Your task to perform on an android device: turn vacation reply on in the gmail app Image 0: 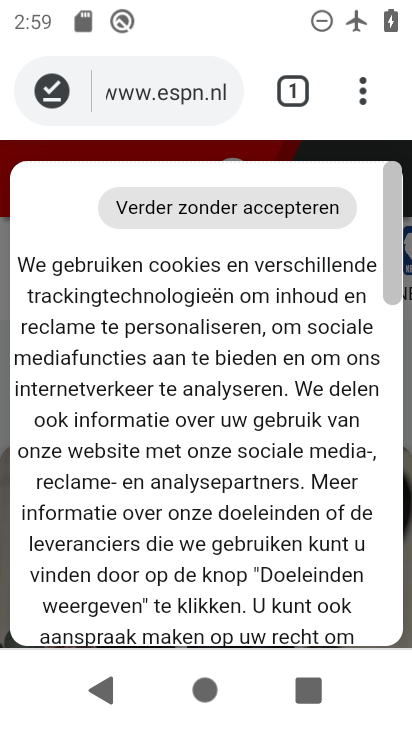
Step 0: press home button
Your task to perform on an android device: turn vacation reply on in the gmail app Image 1: 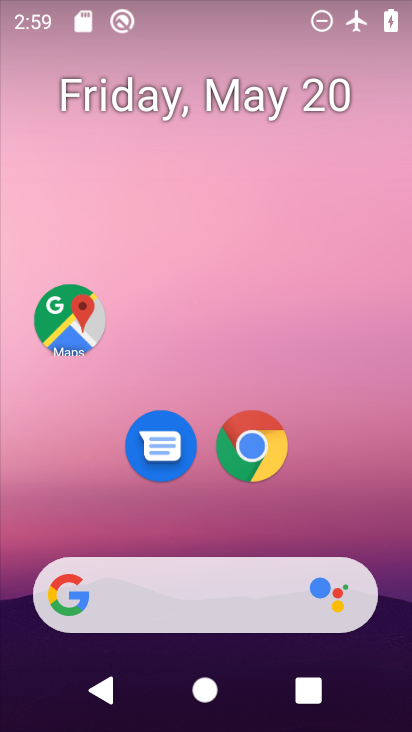
Step 1: drag from (345, 530) to (405, 397)
Your task to perform on an android device: turn vacation reply on in the gmail app Image 2: 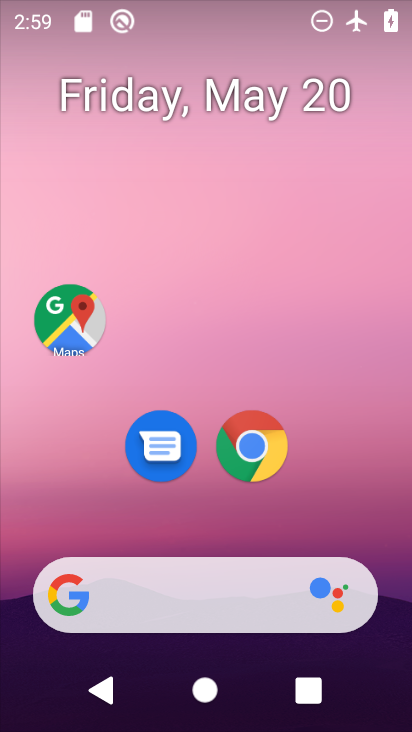
Step 2: drag from (336, 535) to (339, 2)
Your task to perform on an android device: turn vacation reply on in the gmail app Image 3: 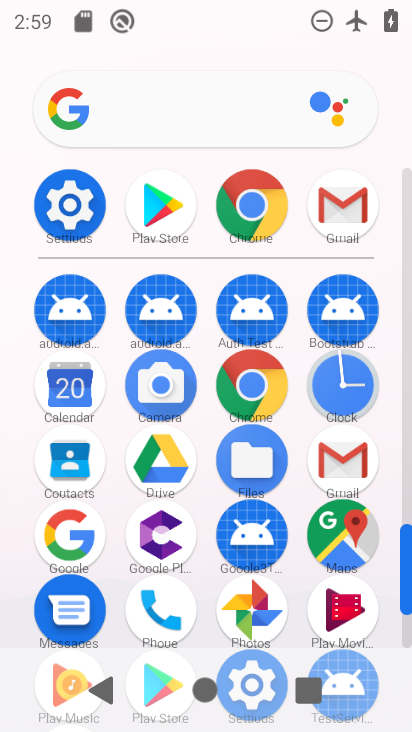
Step 3: click (331, 195)
Your task to perform on an android device: turn vacation reply on in the gmail app Image 4: 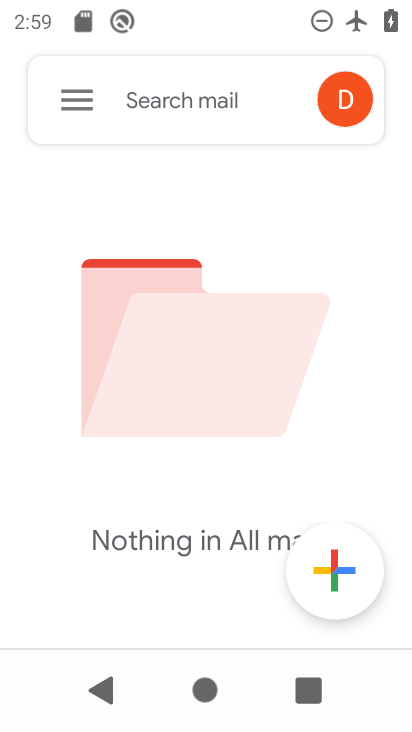
Step 4: click (66, 93)
Your task to perform on an android device: turn vacation reply on in the gmail app Image 5: 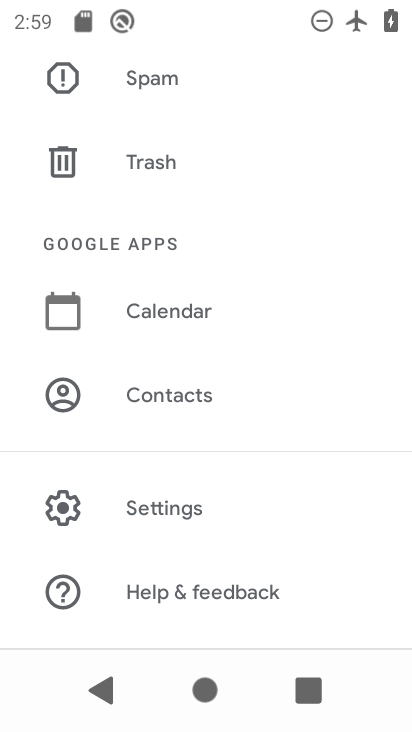
Step 5: click (157, 502)
Your task to perform on an android device: turn vacation reply on in the gmail app Image 6: 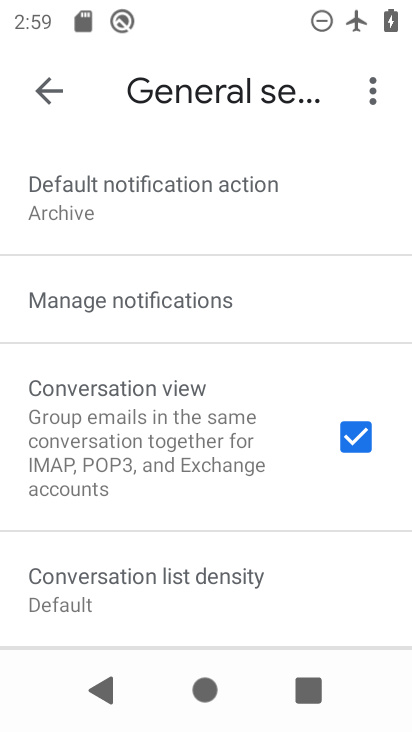
Step 6: click (47, 86)
Your task to perform on an android device: turn vacation reply on in the gmail app Image 7: 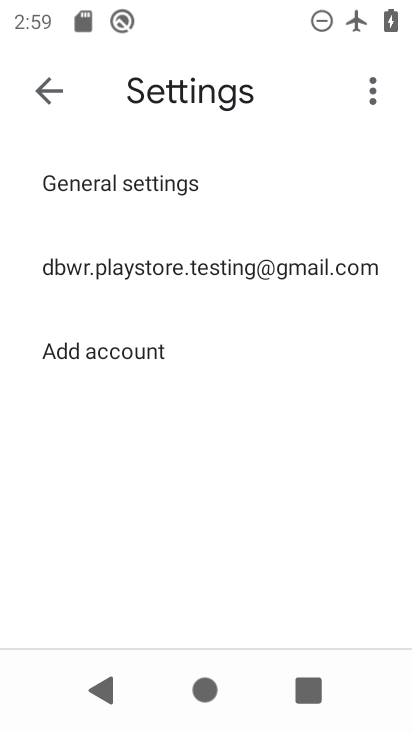
Step 7: click (140, 250)
Your task to perform on an android device: turn vacation reply on in the gmail app Image 8: 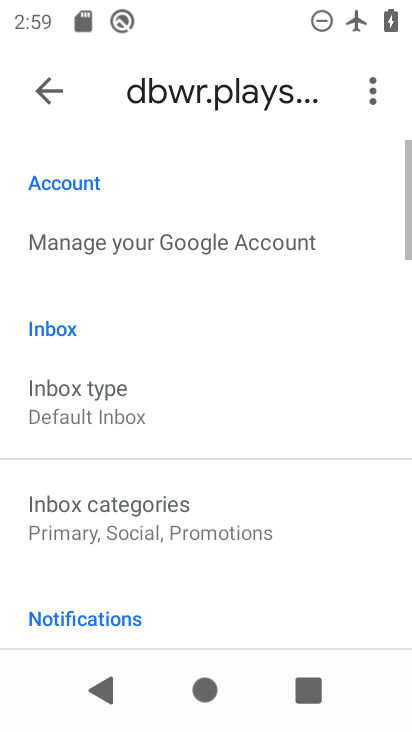
Step 8: drag from (219, 532) to (218, 99)
Your task to perform on an android device: turn vacation reply on in the gmail app Image 9: 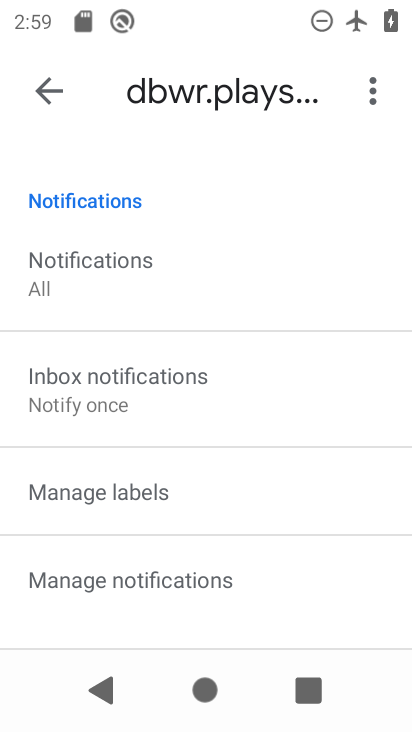
Step 9: drag from (178, 585) to (204, 161)
Your task to perform on an android device: turn vacation reply on in the gmail app Image 10: 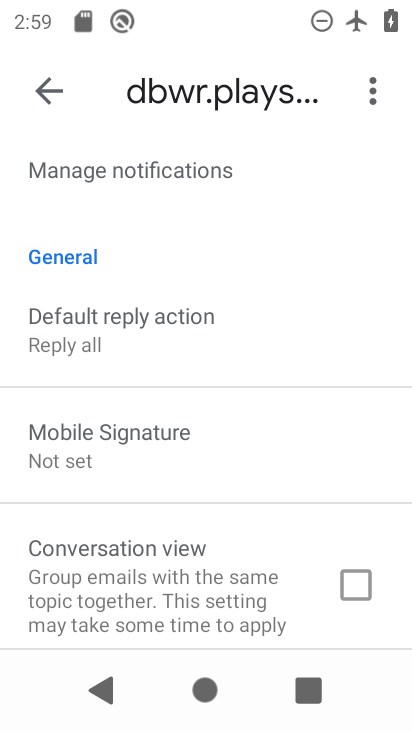
Step 10: drag from (145, 455) to (167, 163)
Your task to perform on an android device: turn vacation reply on in the gmail app Image 11: 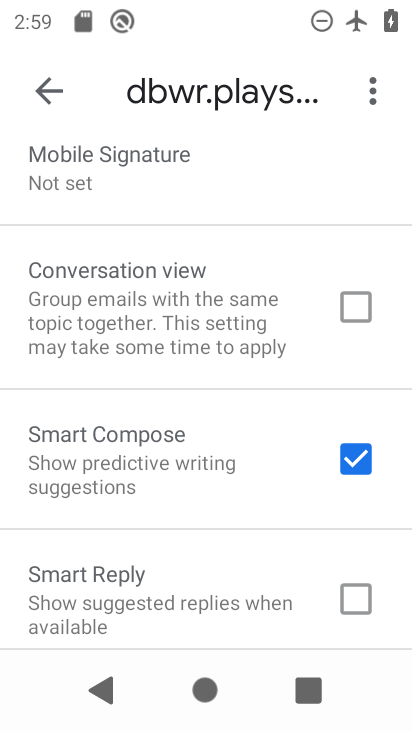
Step 11: drag from (162, 490) to (168, 73)
Your task to perform on an android device: turn vacation reply on in the gmail app Image 12: 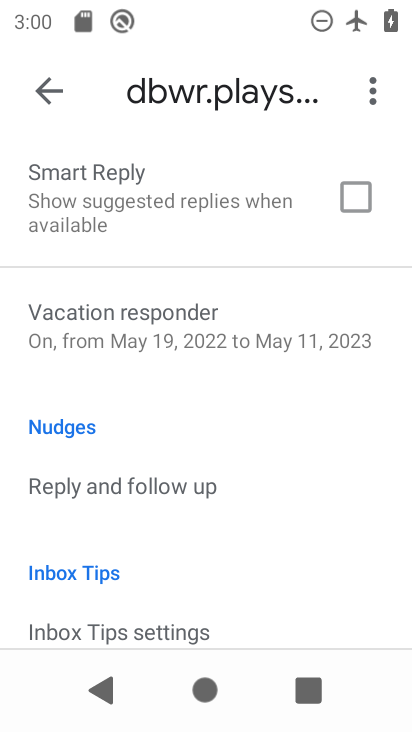
Step 12: click (89, 399)
Your task to perform on an android device: turn vacation reply on in the gmail app Image 13: 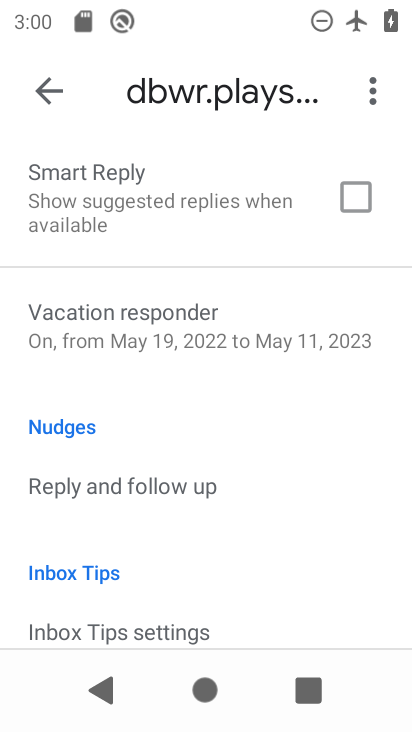
Step 13: click (112, 319)
Your task to perform on an android device: turn vacation reply on in the gmail app Image 14: 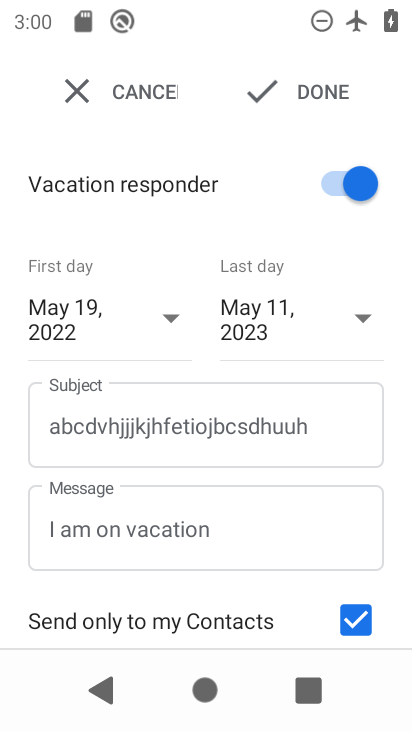
Step 14: click (319, 84)
Your task to perform on an android device: turn vacation reply on in the gmail app Image 15: 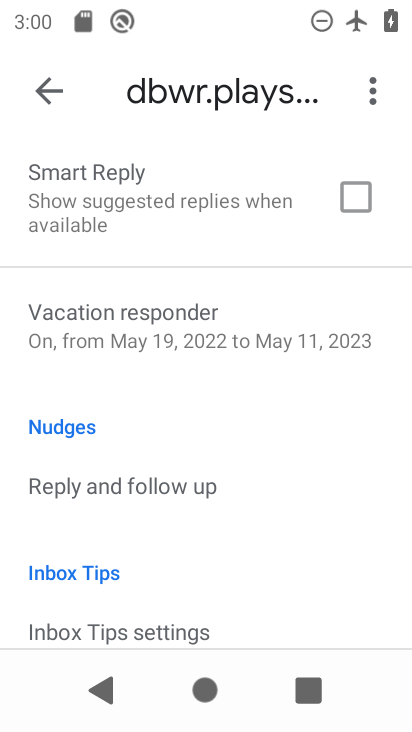
Step 15: task complete